Your task to perform on an android device: Toggle the flashlight Image 0: 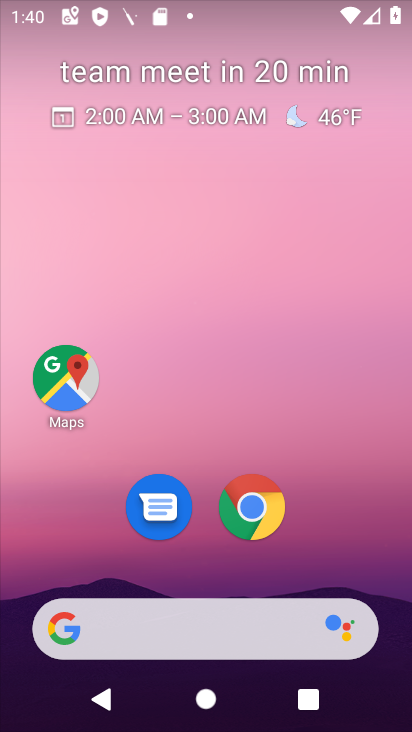
Step 0: drag from (261, 655) to (258, 187)
Your task to perform on an android device: Toggle the flashlight Image 1: 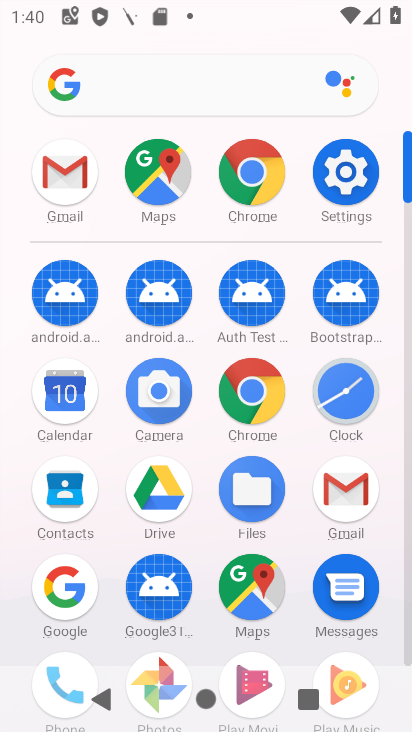
Step 1: click (341, 174)
Your task to perform on an android device: Toggle the flashlight Image 2: 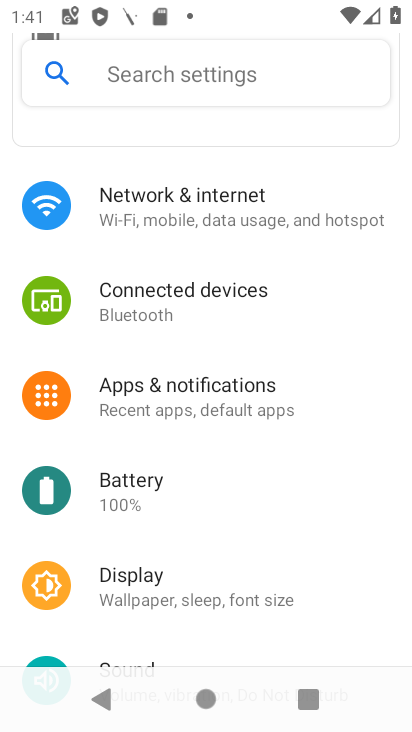
Step 2: click (171, 72)
Your task to perform on an android device: Toggle the flashlight Image 3: 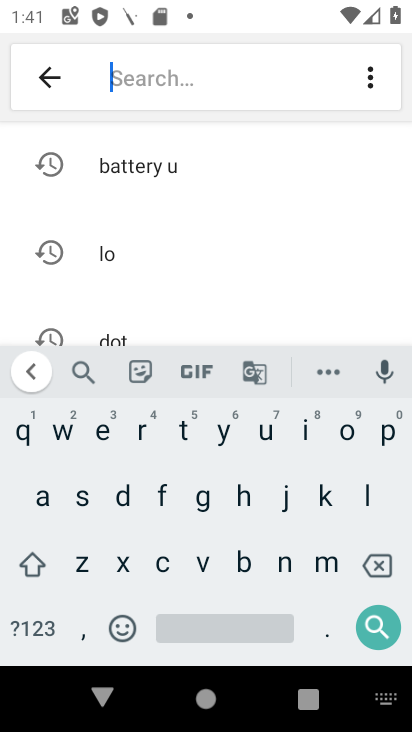
Step 3: click (160, 491)
Your task to perform on an android device: Toggle the flashlight Image 4: 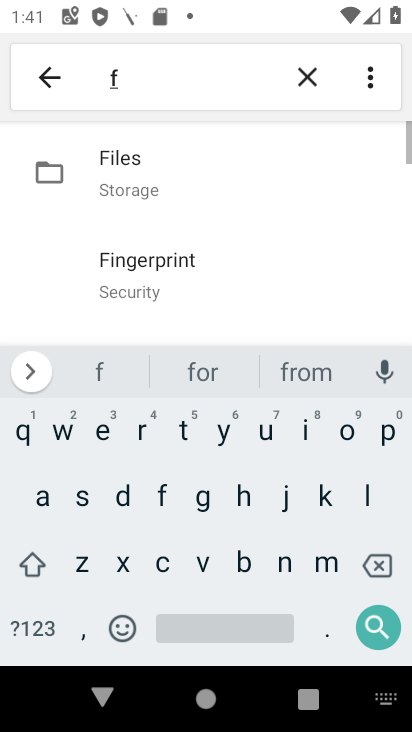
Step 4: click (354, 500)
Your task to perform on an android device: Toggle the flashlight Image 5: 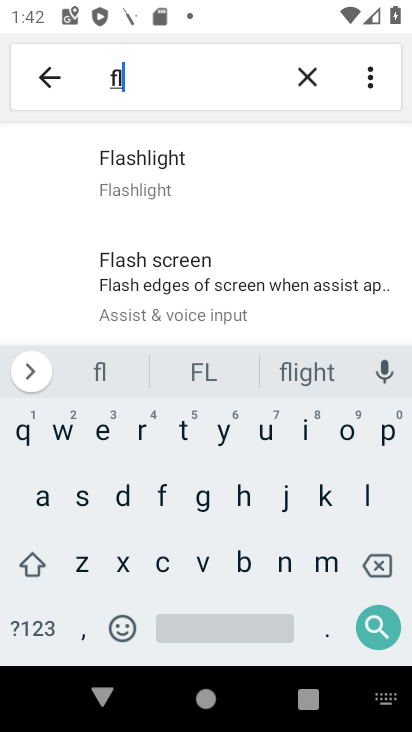
Step 5: click (119, 191)
Your task to perform on an android device: Toggle the flashlight Image 6: 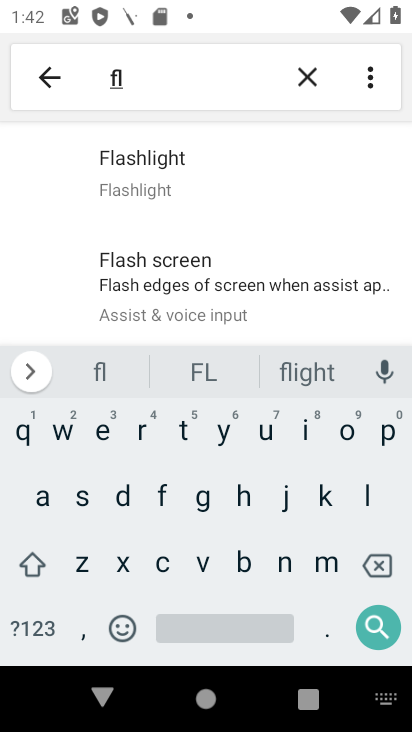
Step 6: task complete